Your task to perform on an android device: read, delete, or share a saved page in the chrome app Image 0: 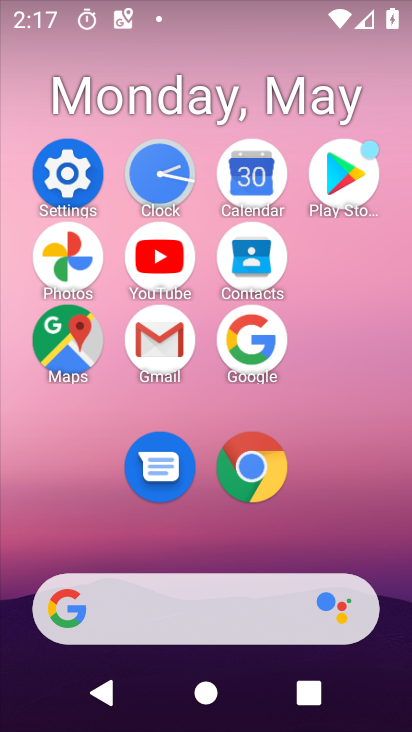
Step 0: click (269, 483)
Your task to perform on an android device: read, delete, or share a saved page in the chrome app Image 1: 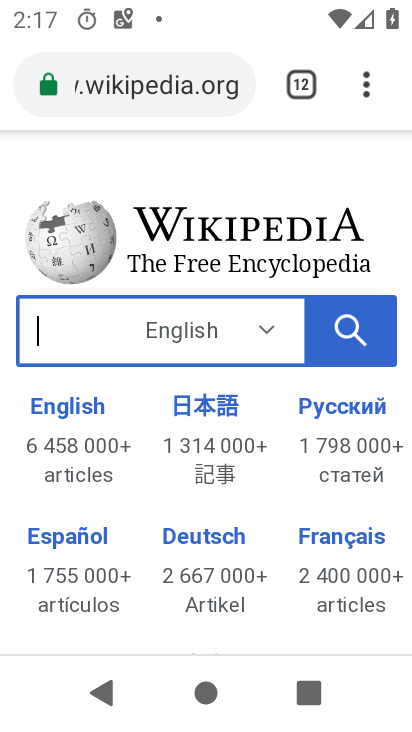
Step 1: click (386, 81)
Your task to perform on an android device: read, delete, or share a saved page in the chrome app Image 2: 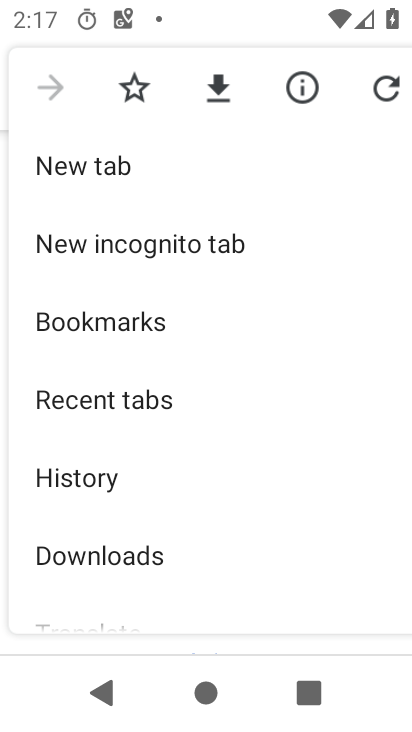
Step 2: drag from (162, 459) to (193, 191)
Your task to perform on an android device: read, delete, or share a saved page in the chrome app Image 3: 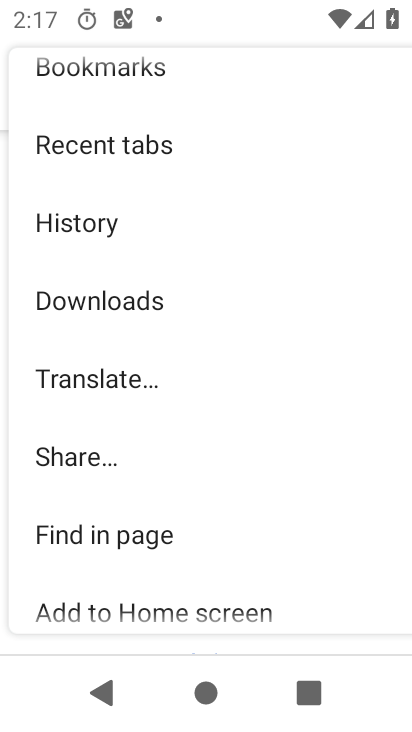
Step 3: click (203, 306)
Your task to perform on an android device: read, delete, or share a saved page in the chrome app Image 4: 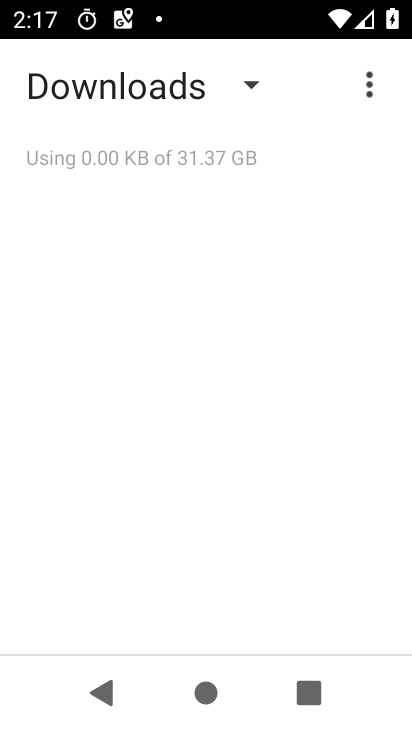
Step 4: task complete